Your task to perform on an android device: Clear all items from cart on ebay. Image 0: 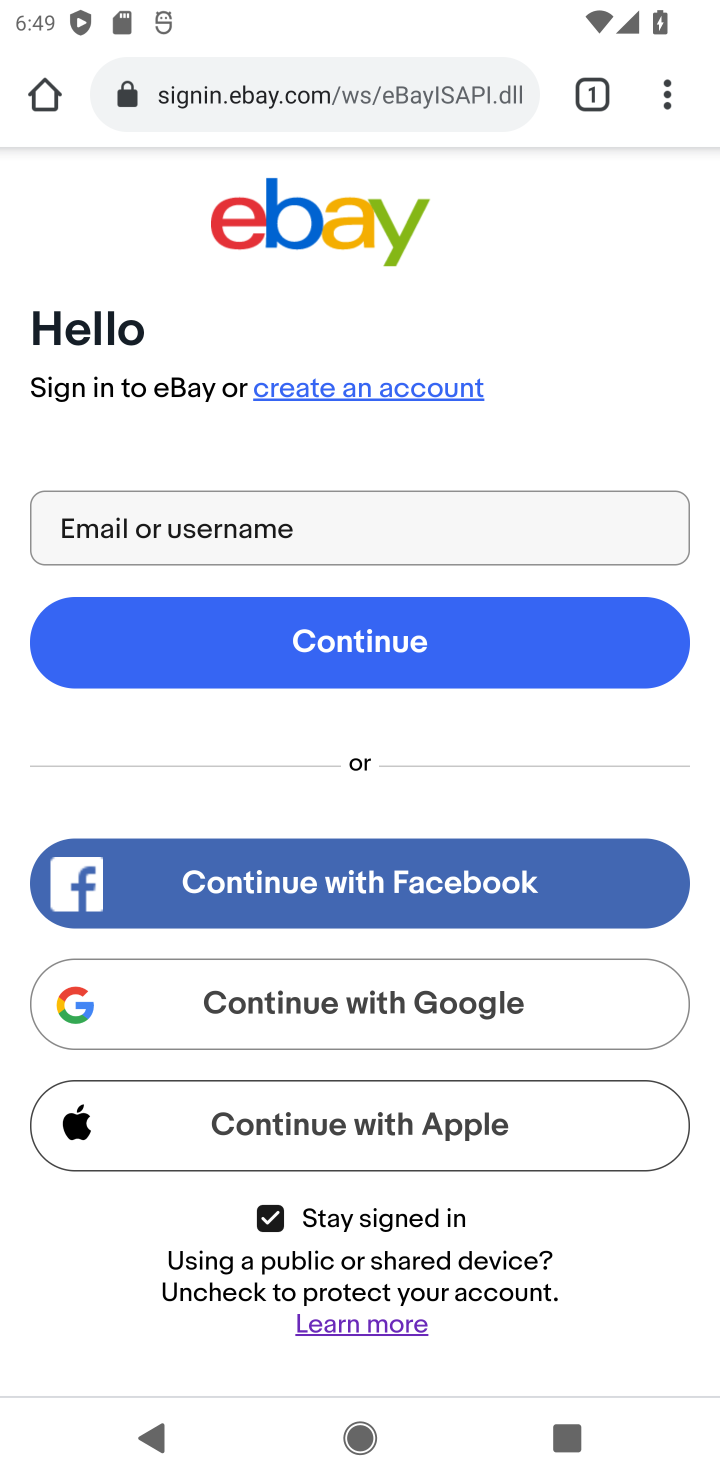
Step 0: press home button
Your task to perform on an android device: Clear all items from cart on ebay. Image 1: 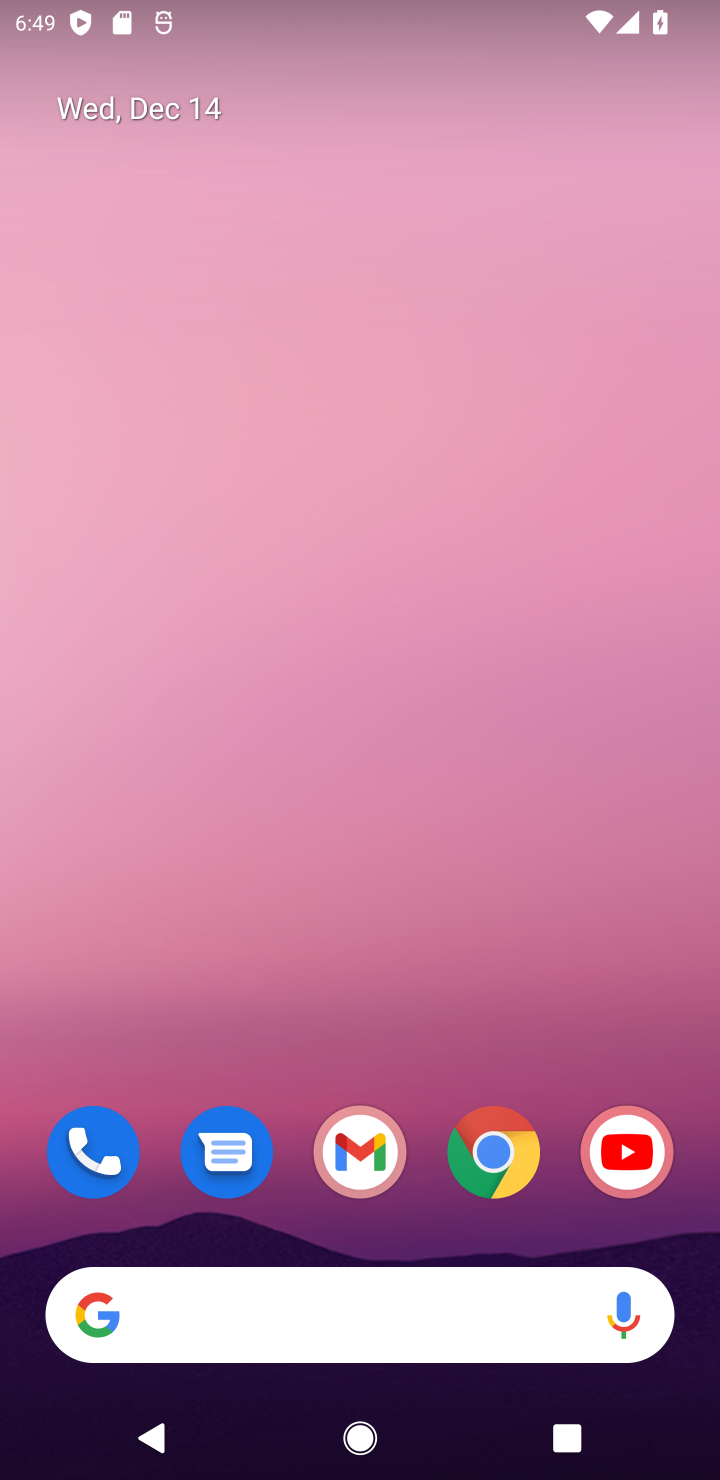
Step 1: click (505, 1147)
Your task to perform on an android device: Clear all items from cart on ebay. Image 2: 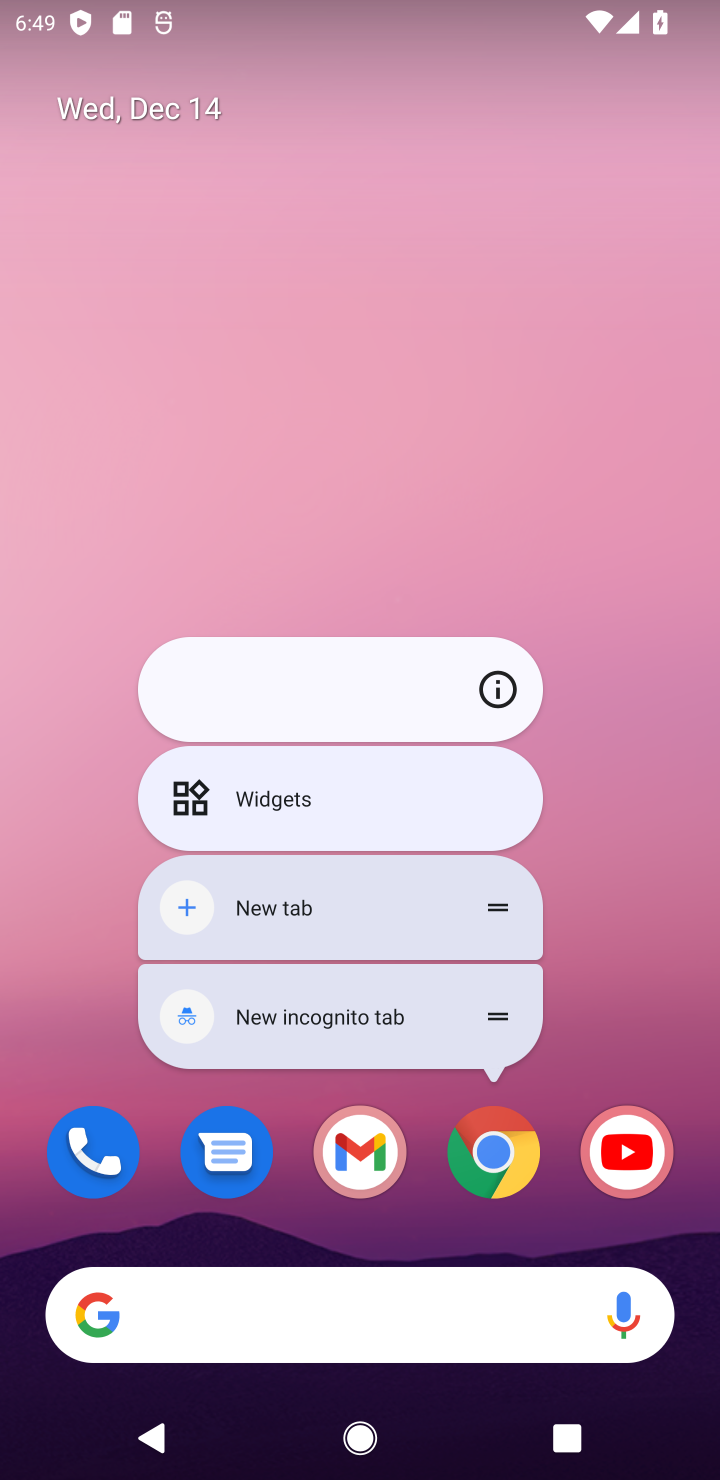
Step 2: click (496, 1158)
Your task to perform on an android device: Clear all items from cart on ebay. Image 3: 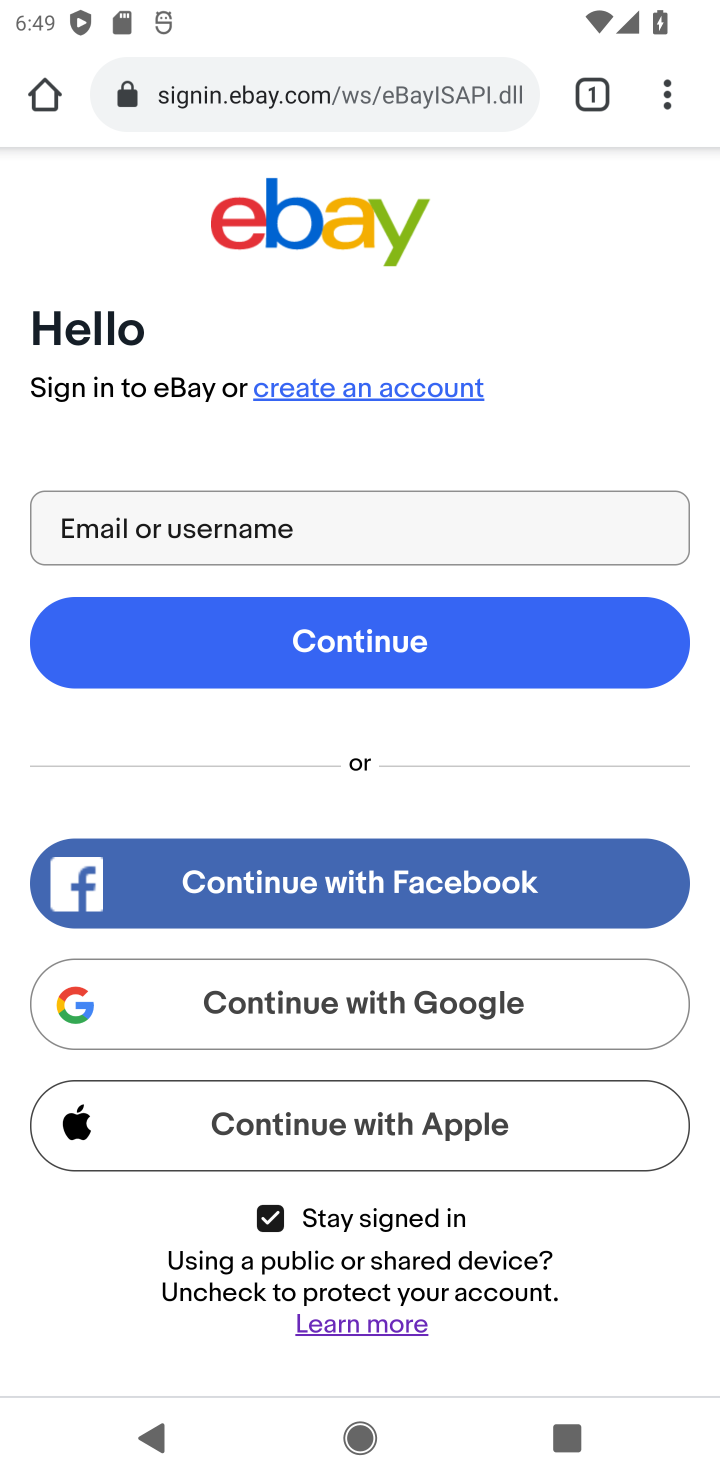
Step 3: press back button
Your task to perform on an android device: Clear all items from cart on ebay. Image 4: 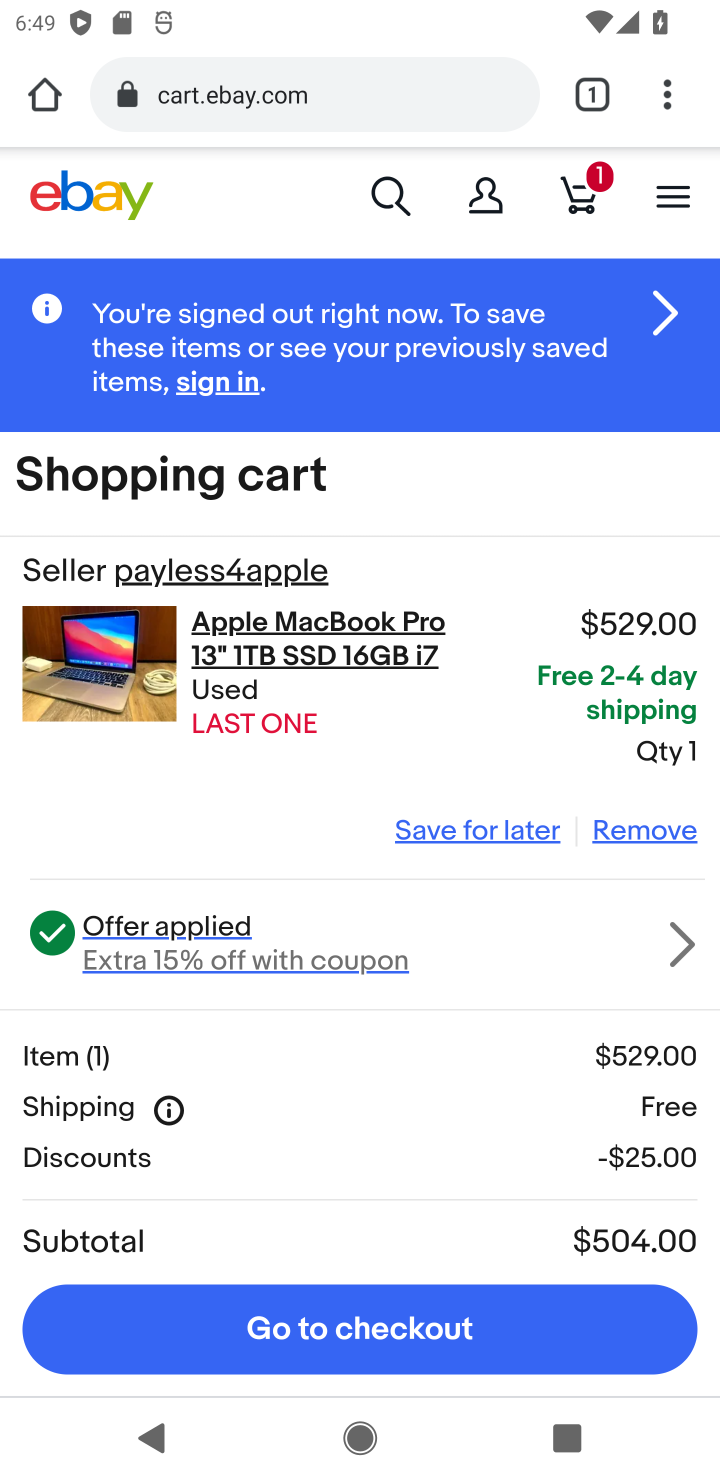
Step 4: click (658, 840)
Your task to perform on an android device: Clear all items from cart on ebay. Image 5: 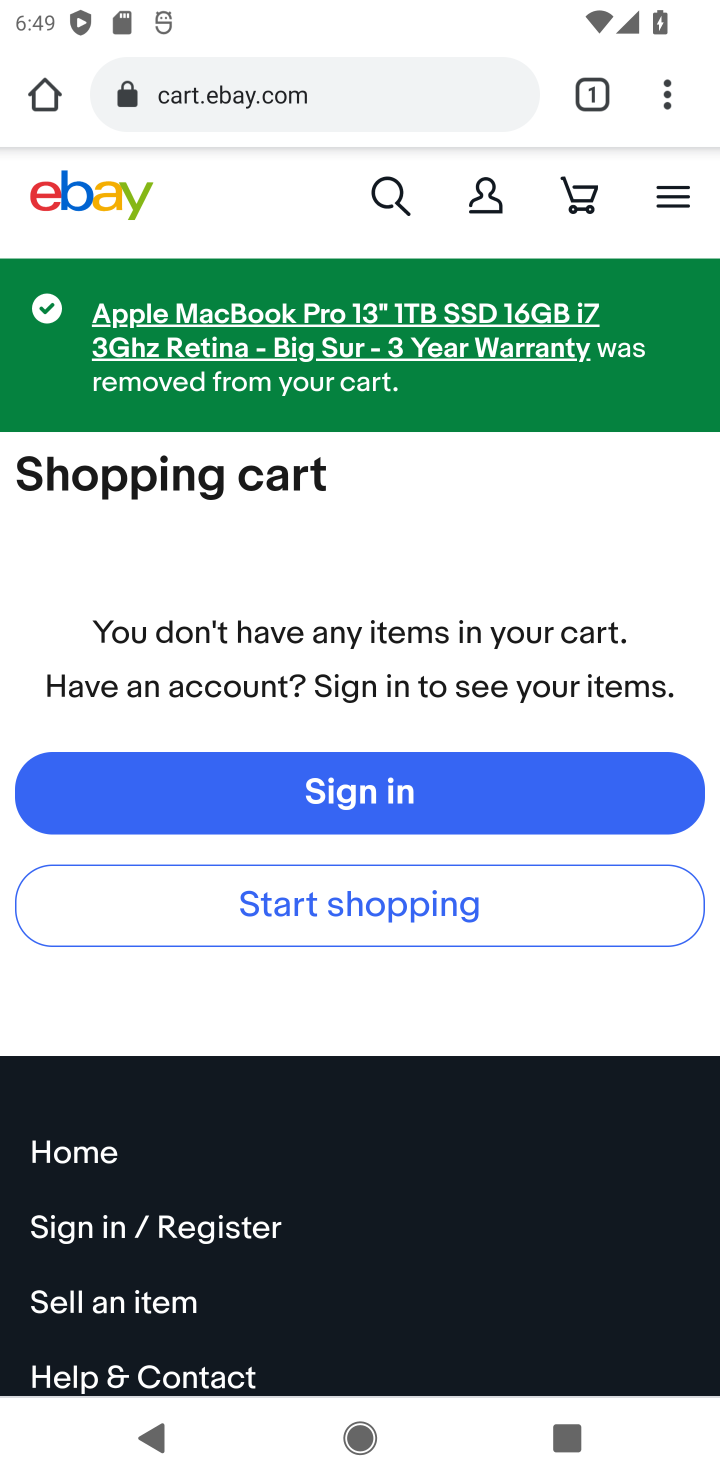
Step 5: task complete